Your task to perform on an android device: check out phone information Image 0: 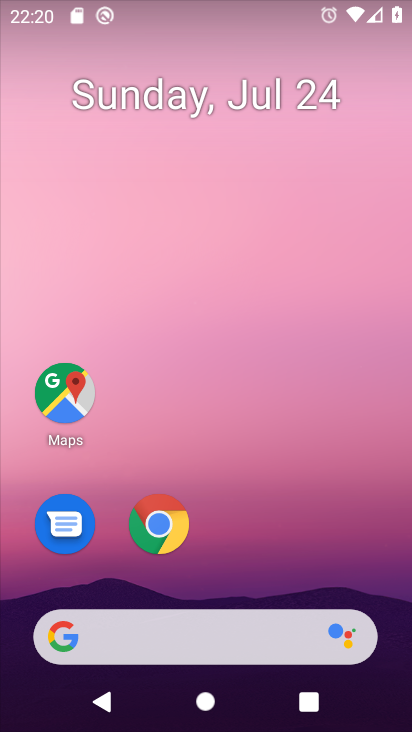
Step 0: drag from (244, 574) to (230, 0)
Your task to perform on an android device: check out phone information Image 1: 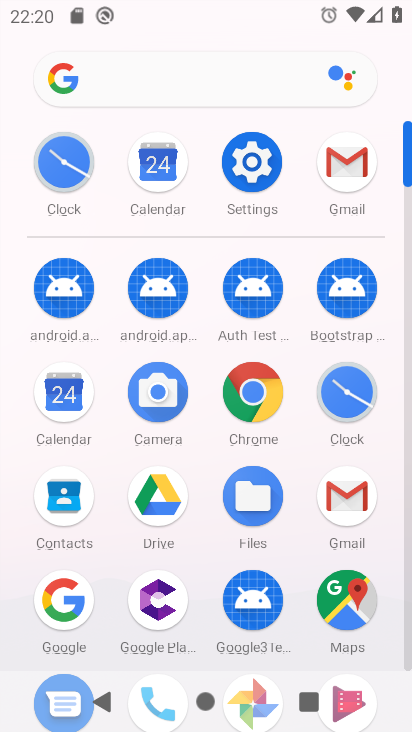
Step 1: drag from (210, 537) to (194, 248)
Your task to perform on an android device: check out phone information Image 2: 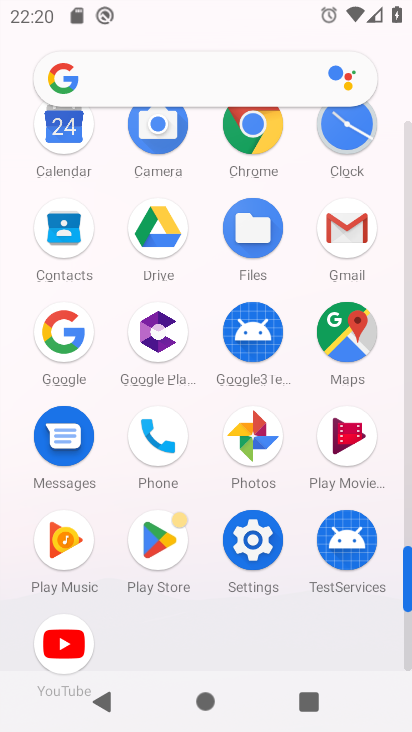
Step 2: click (157, 441)
Your task to perform on an android device: check out phone information Image 3: 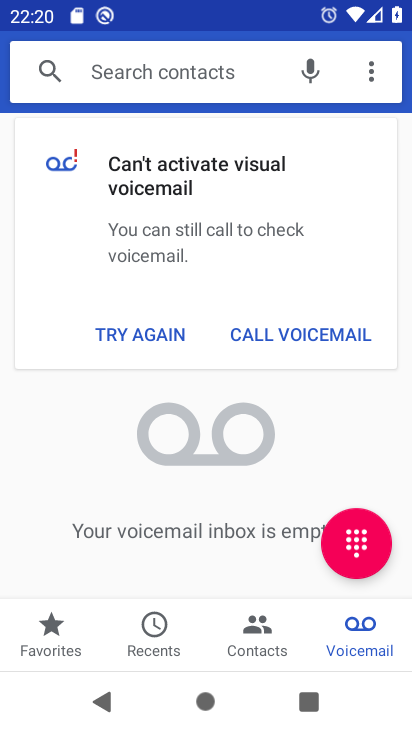
Step 3: task complete